Your task to perform on an android device: Open network settings Image 0: 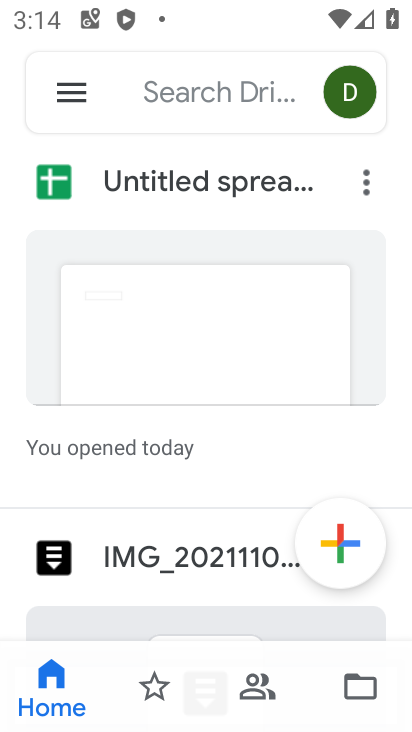
Step 0: press home button
Your task to perform on an android device: Open network settings Image 1: 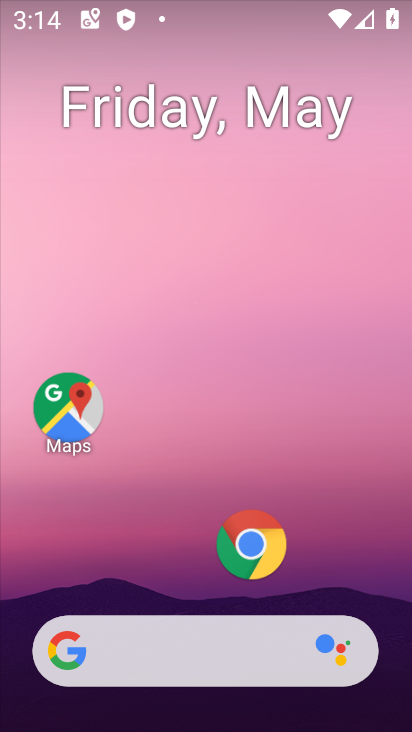
Step 1: drag from (208, 589) to (205, 264)
Your task to perform on an android device: Open network settings Image 2: 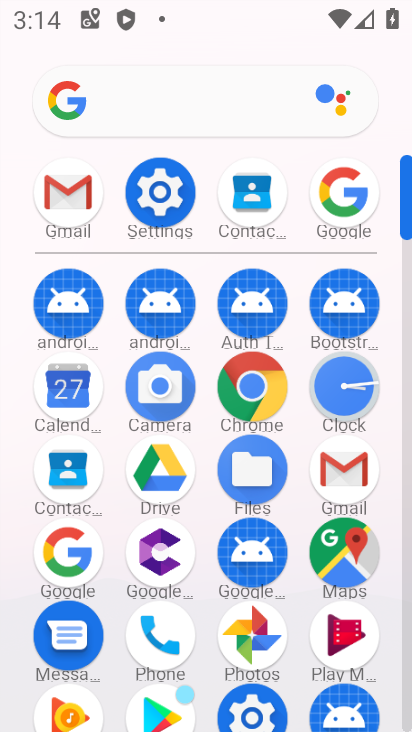
Step 2: click (176, 228)
Your task to perform on an android device: Open network settings Image 3: 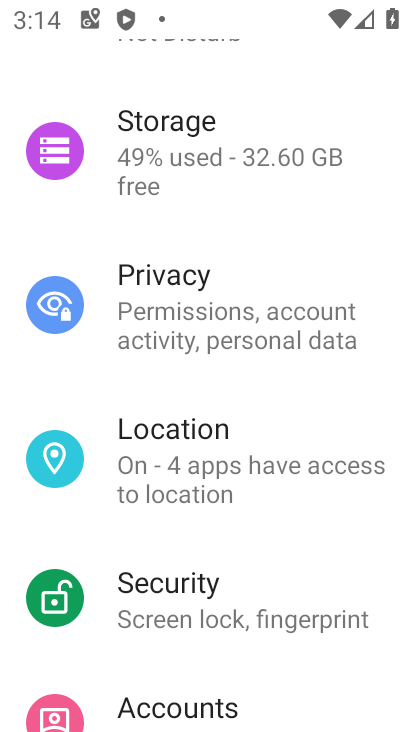
Step 3: drag from (246, 230) to (269, 636)
Your task to perform on an android device: Open network settings Image 4: 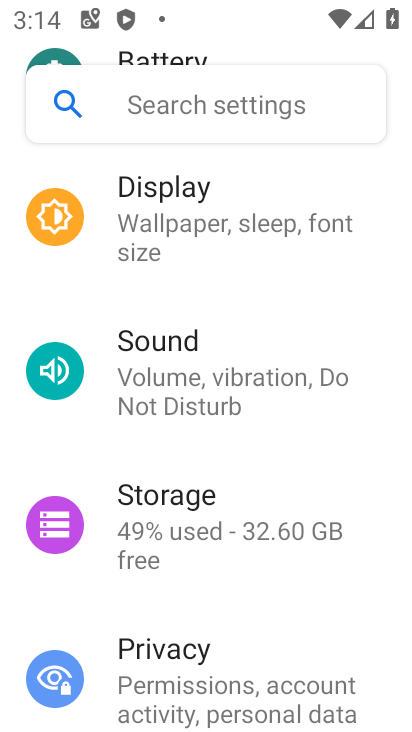
Step 4: drag from (286, 258) to (298, 611)
Your task to perform on an android device: Open network settings Image 5: 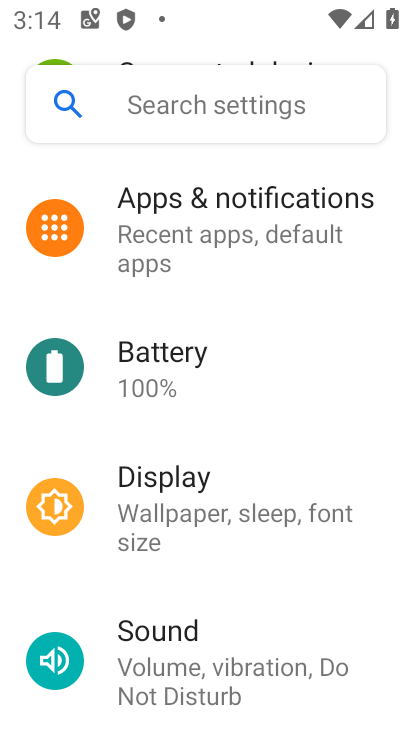
Step 5: drag from (249, 244) to (256, 619)
Your task to perform on an android device: Open network settings Image 6: 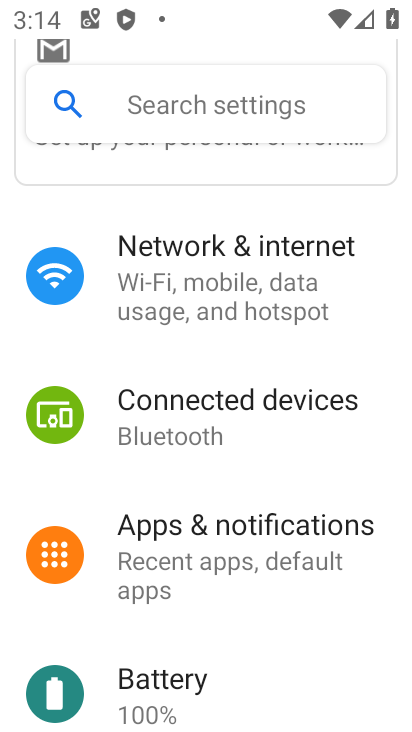
Step 6: click (259, 271)
Your task to perform on an android device: Open network settings Image 7: 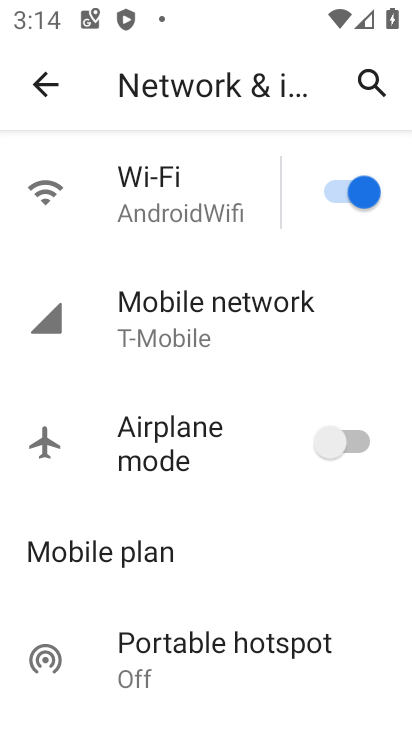
Step 7: click (241, 356)
Your task to perform on an android device: Open network settings Image 8: 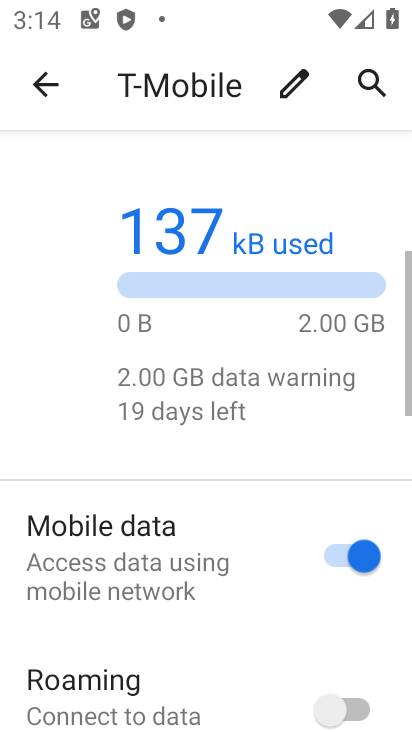
Step 8: drag from (199, 556) to (225, 258)
Your task to perform on an android device: Open network settings Image 9: 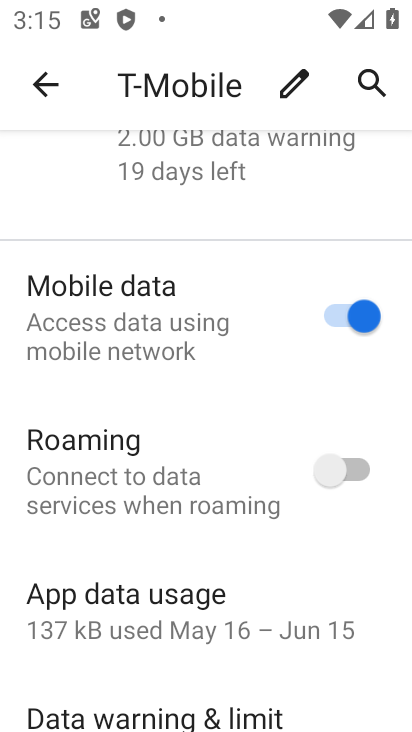
Step 9: drag from (225, 258) to (226, 527)
Your task to perform on an android device: Open network settings Image 10: 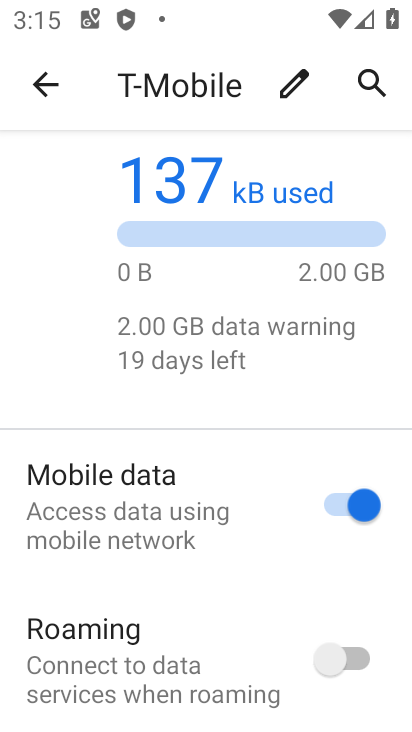
Step 10: drag from (238, 580) to (249, 379)
Your task to perform on an android device: Open network settings Image 11: 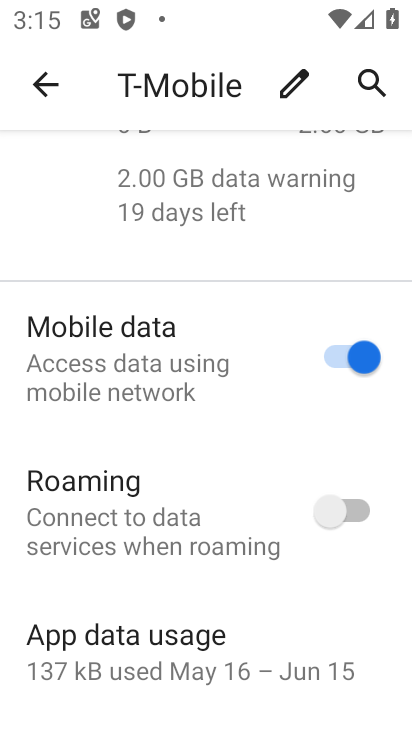
Step 11: drag from (200, 282) to (200, 577)
Your task to perform on an android device: Open network settings Image 12: 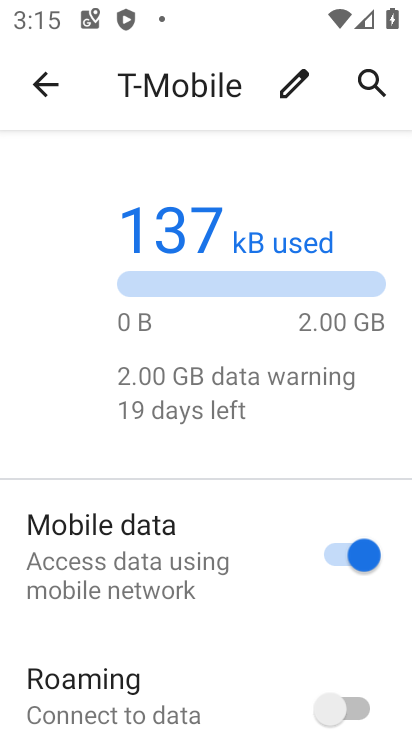
Step 12: drag from (170, 336) to (203, 541)
Your task to perform on an android device: Open network settings Image 13: 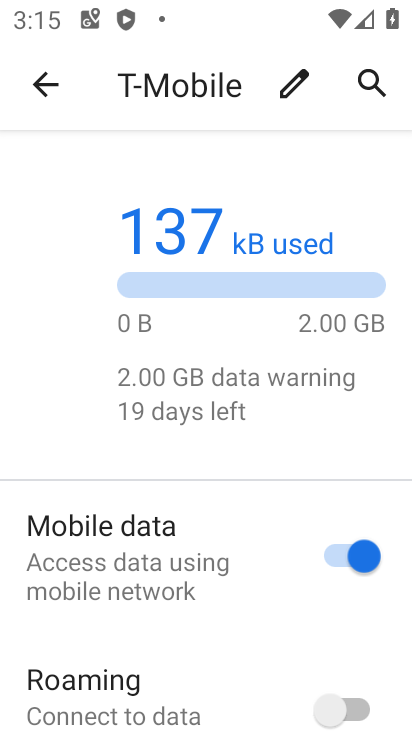
Step 13: drag from (215, 558) to (215, 254)
Your task to perform on an android device: Open network settings Image 14: 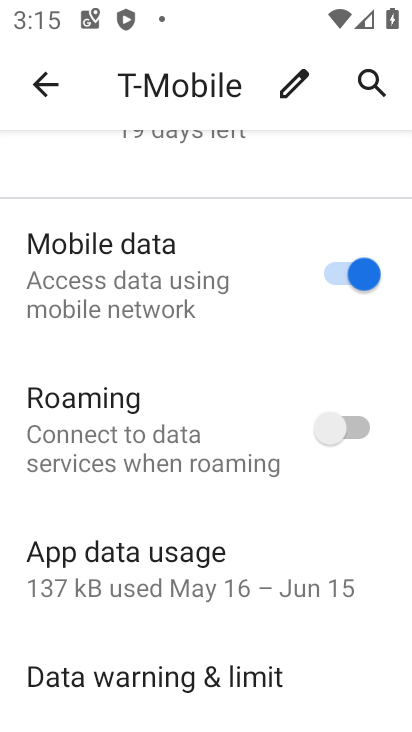
Step 14: drag from (217, 518) to (215, 199)
Your task to perform on an android device: Open network settings Image 15: 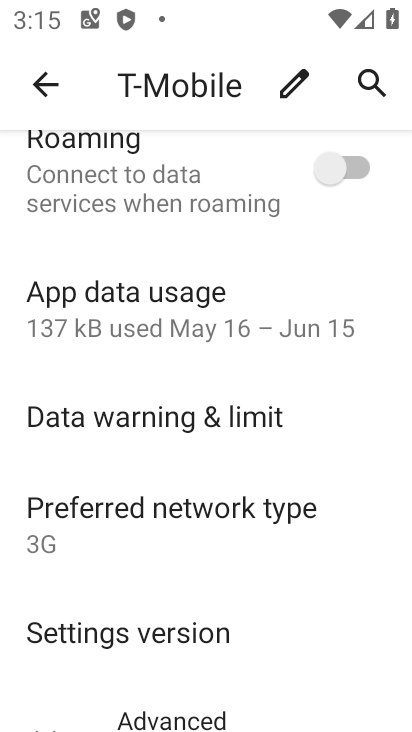
Step 15: click (57, 83)
Your task to perform on an android device: Open network settings Image 16: 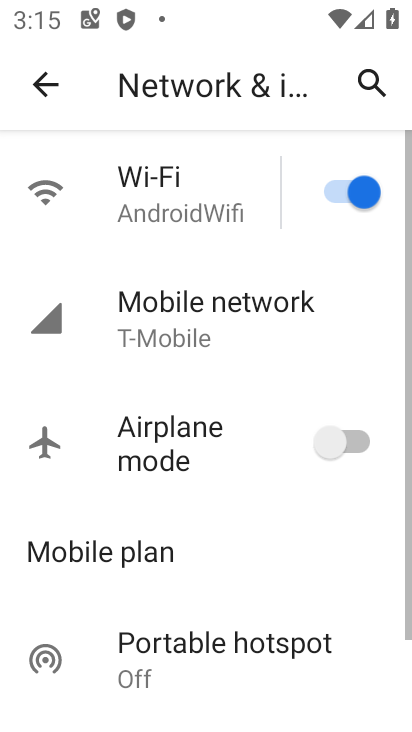
Step 16: task complete